Your task to perform on an android device: show emergency info Image 0: 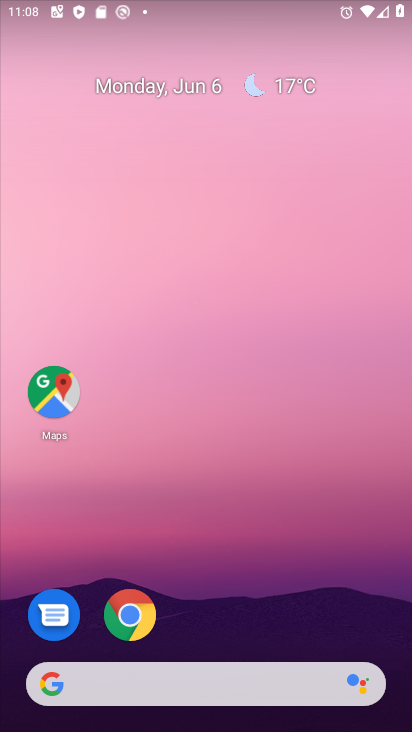
Step 0: drag from (215, 638) to (240, 15)
Your task to perform on an android device: show emergency info Image 1: 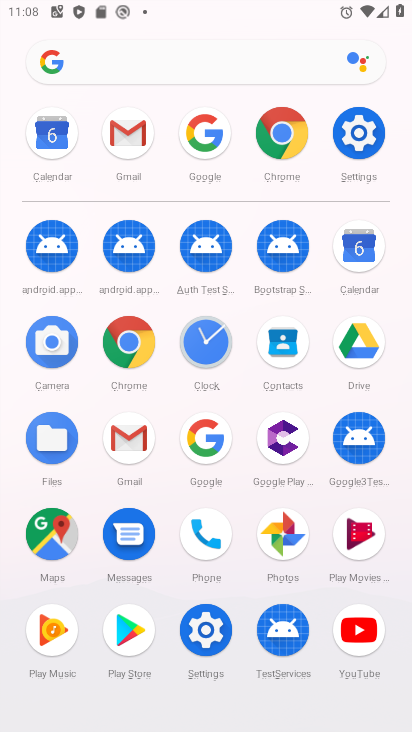
Step 1: click (356, 124)
Your task to perform on an android device: show emergency info Image 2: 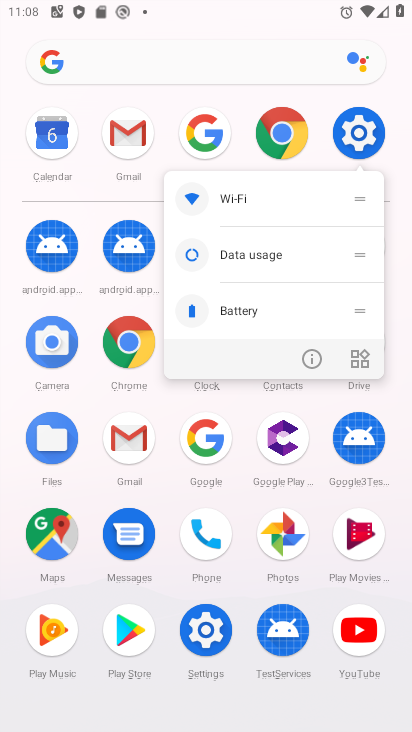
Step 2: click (359, 122)
Your task to perform on an android device: show emergency info Image 3: 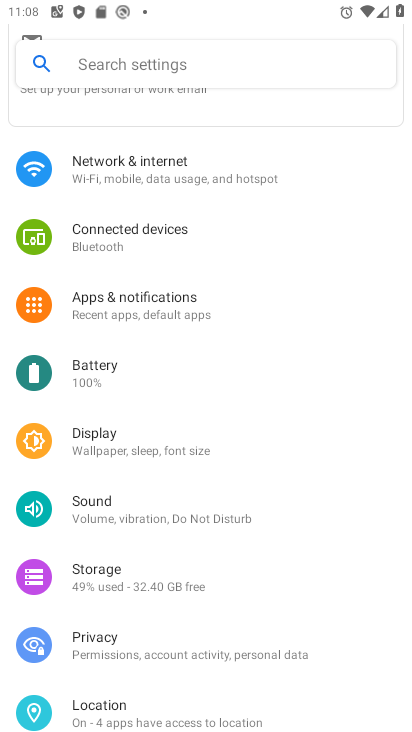
Step 3: drag from (207, 675) to (218, 75)
Your task to perform on an android device: show emergency info Image 4: 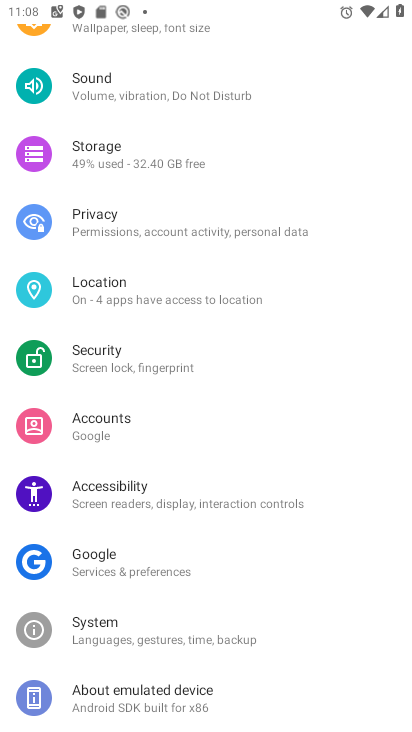
Step 4: click (233, 696)
Your task to perform on an android device: show emergency info Image 5: 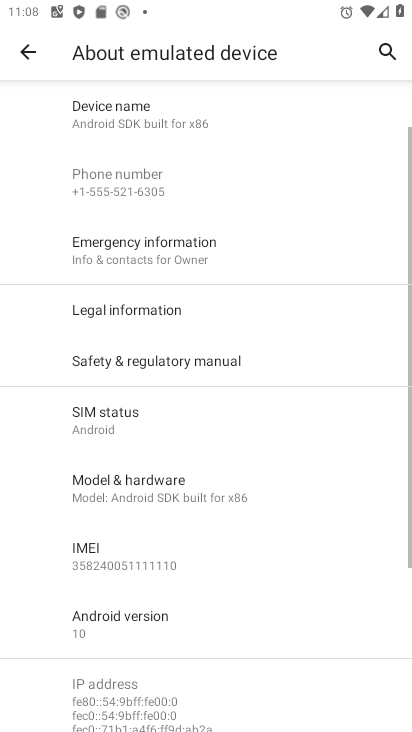
Step 5: click (232, 250)
Your task to perform on an android device: show emergency info Image 6: 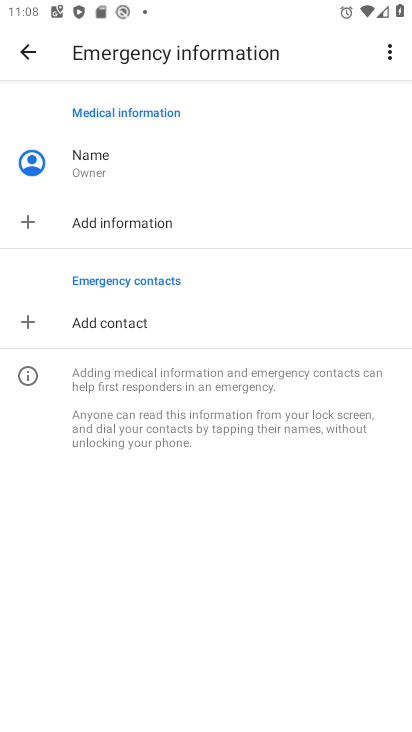
Step 6: task complete